Your task to perform on an android device: Open eBay Image 0: 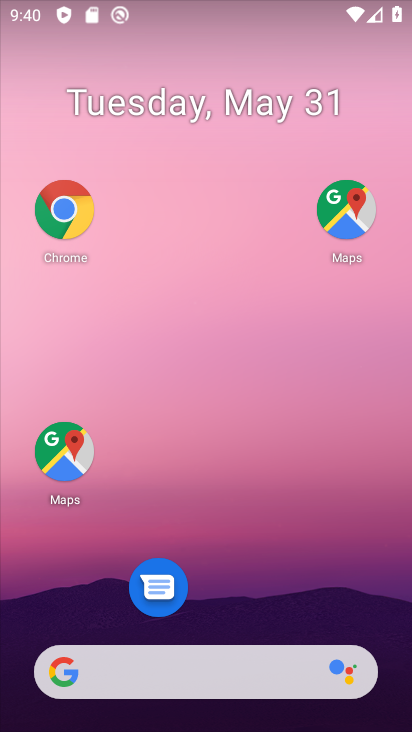
Step 0: drag from (272, 619) to (228, 177)
Your task to perform on an android device: Open eBay Image 1: 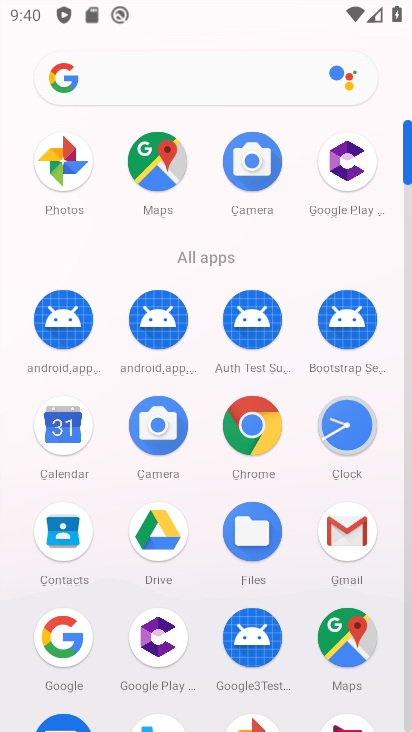
Step 1: click (249, 432)
Your task to perform on an android device: Open eBay Image 2: 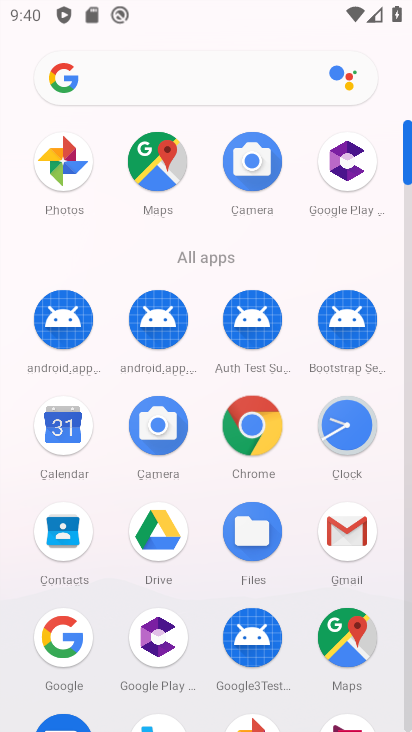
Step 2: click (252, 432)
Your task to perform on an android device: Open eBay Image 3: 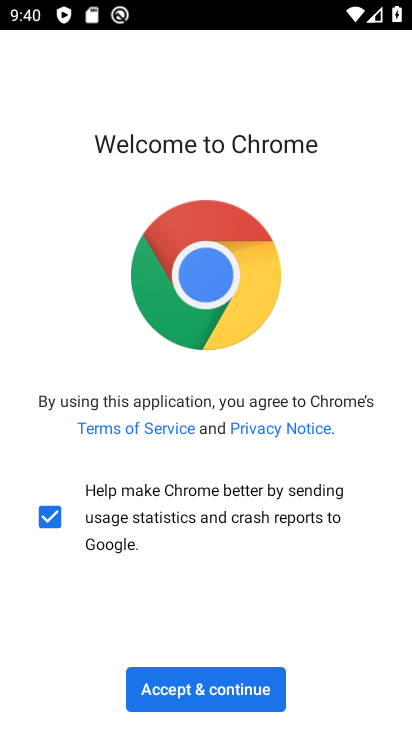
Step 3: click (243, 689)
Your task to perform on an android device: Open eBay Image 4: 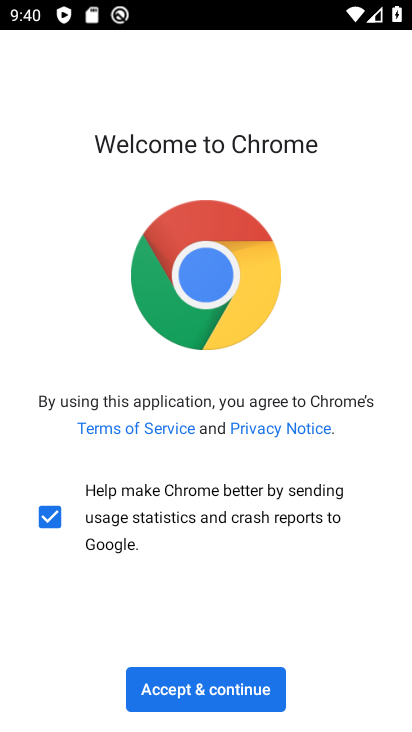
Step 4: click (242, 689)
Your task to perform on an android device: Open eBay Image 5: 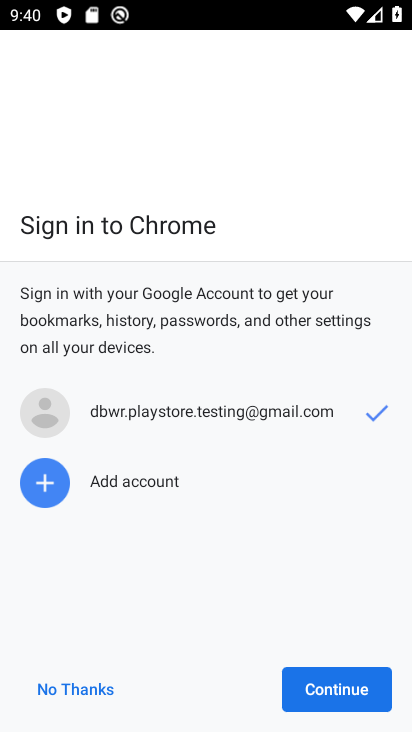
Step 5: click (242, 689)
Your task to perform on an android device: Open eBay Image 6: 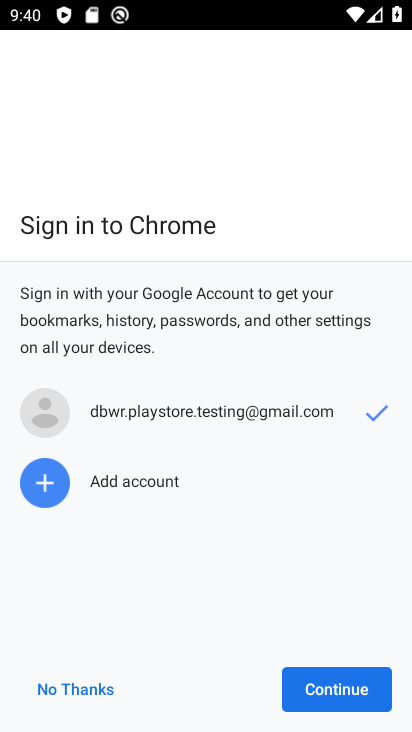
Step 6: click (242, 689)
Your task to perform on an android device: Open eBay Image 7: 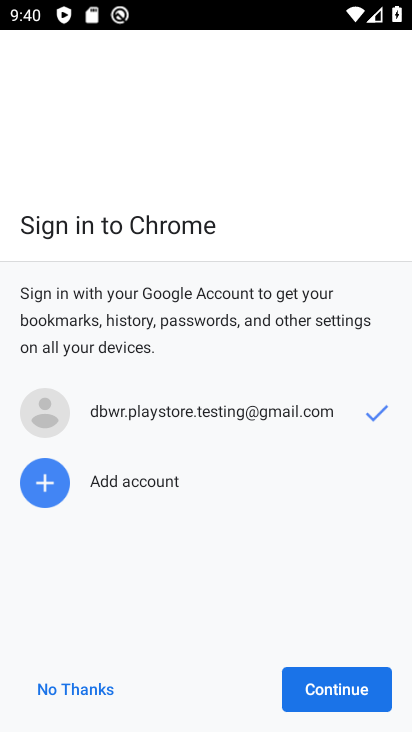
Step 7: click (358, 688)
Your task to perform on an android device: Open eBay Image 8: 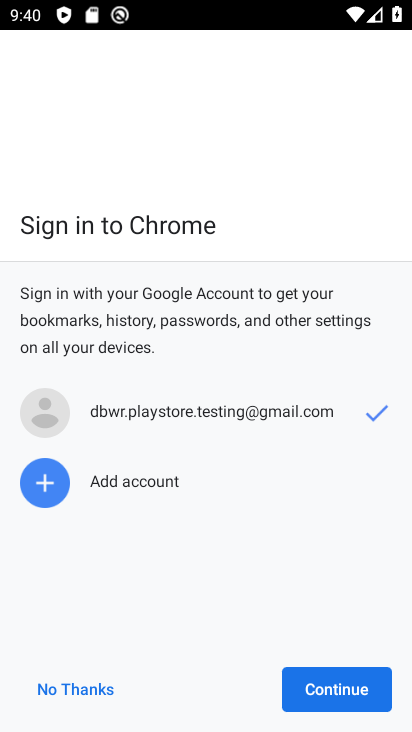
Step 8: click (358, 691)
Your task to perform on an android device: Open eBay Image 9: 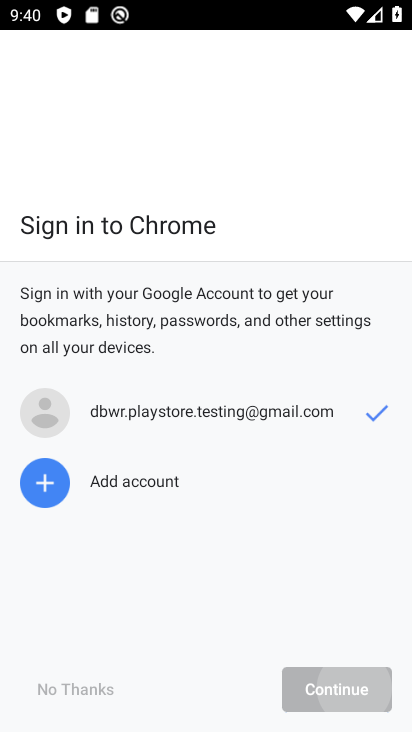
Step 9: click (358, 691)
Your task to perform on an android device: Open eBay Image 10: 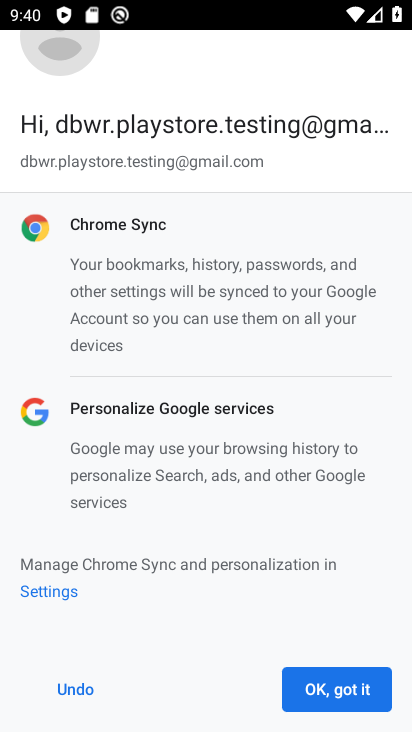
Step 10: click (339, 689)
Your task to perform on an android device: Open eBay Image 11: 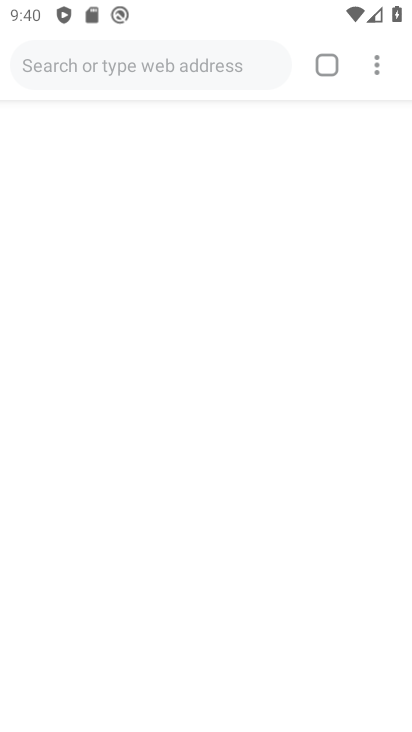
Step 11: click (356, 692)
Your task to perform on an android device: Open eBay Image 12: 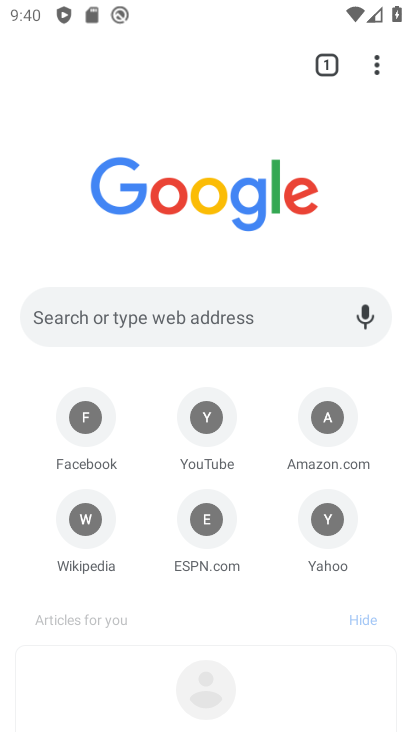
Step 12: press back button
Your task to perform on an android device: Open eBay Image 13: 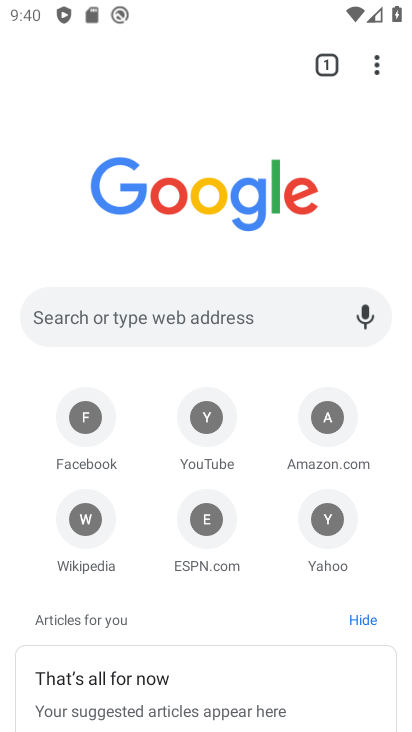
Step 13: press back button
Your task to perform on an android device: Open eBay Image 14: 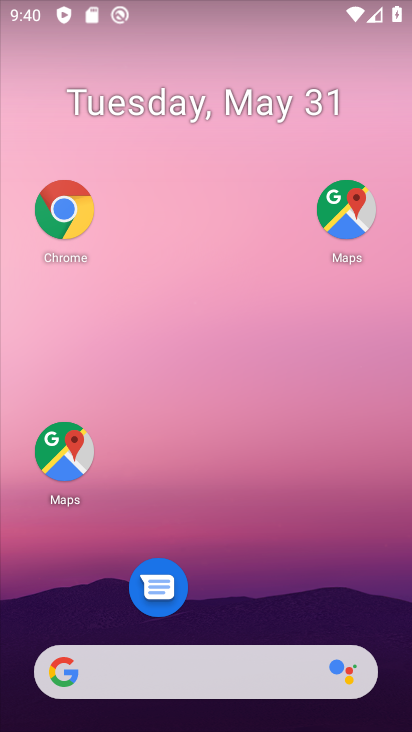
Step 14: drag from (261, 339) to (191, 75)
Your task to perform on an android device: Open eBay Image 15: 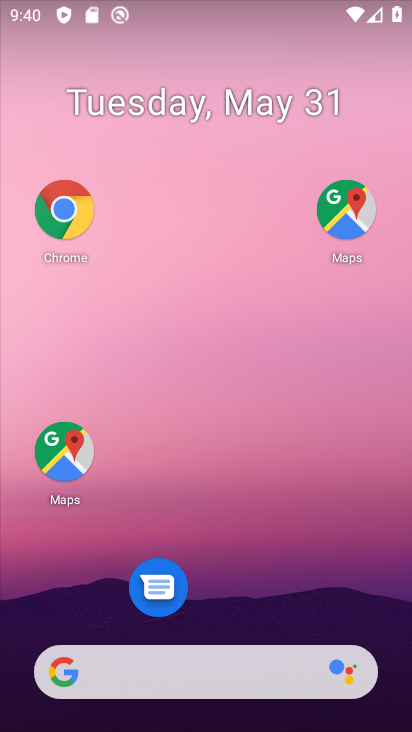
Step 15: drag from (240, 637) to (170, 9)
Your task to perform on an android device: Open eBay Image 16: 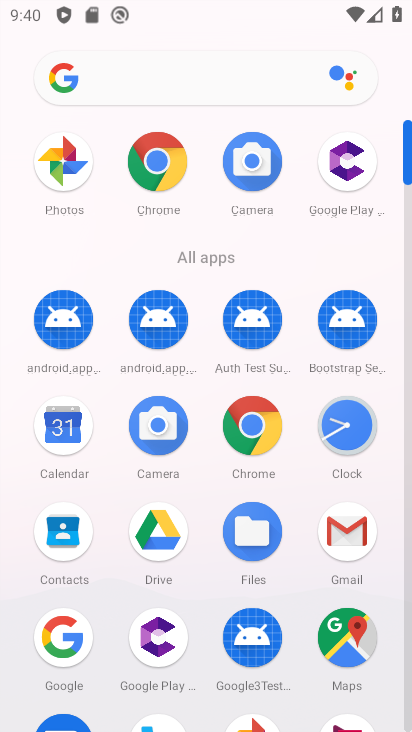
Step 16: click (159, 160)
Your task to perform on an android device: Open eBay Image 17: 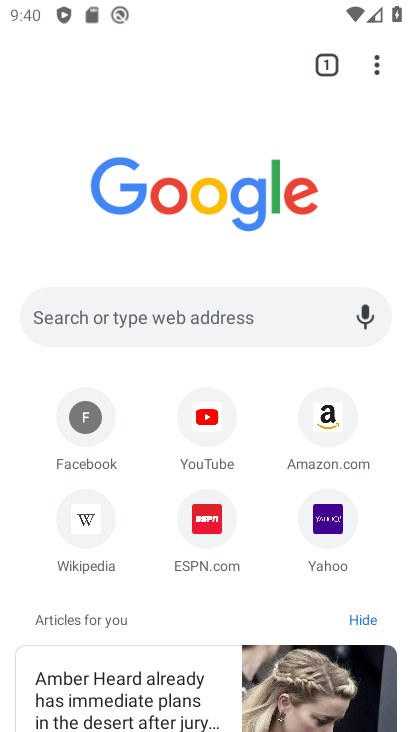
Step 17: click (159, 160)
Your task to perform on an android device: Open eBay Image 18: 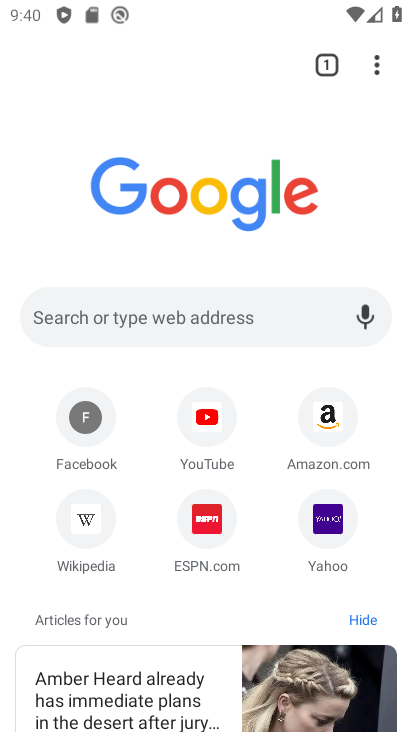
Step 18: click (374, 73)
Your task to perform on an android device: Open eBay Image 19: 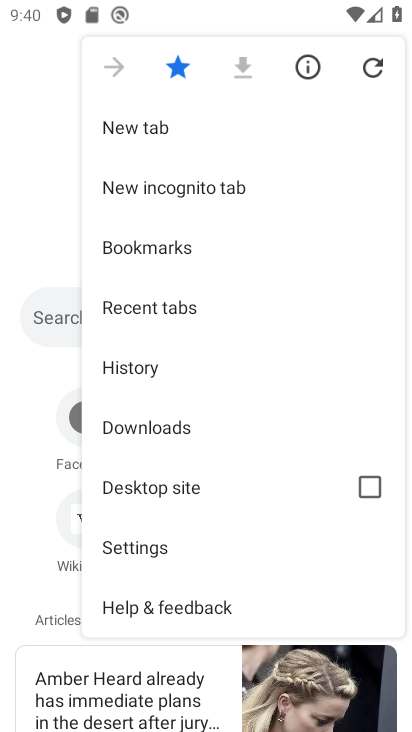
Step 19: click (383, 67)
Your task to perform on an android device: Open eBay Image 20: 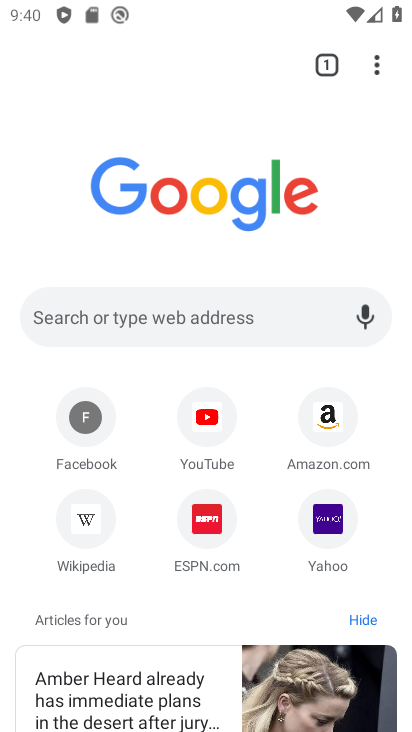
Step 20: click (384, 71)
Your task to perform on an android device: Open eBay Image 21: 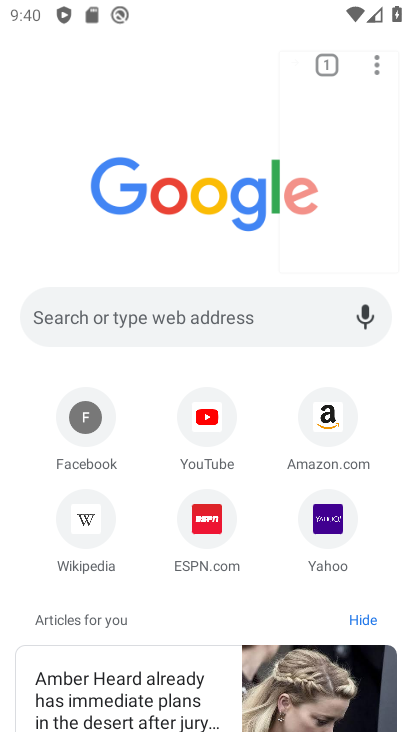
Step 21: click (374, 70)
Your task to perform on an android device: Open eBay Image 22: 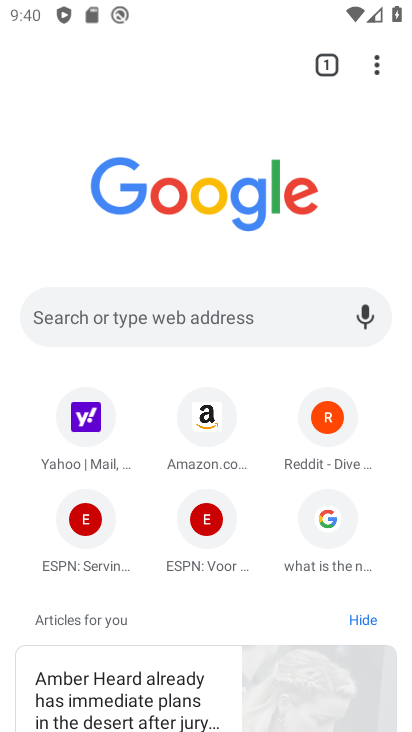
Step 22: click (374, 70)
Your task to perform on an android device: Open eBay Image 23: 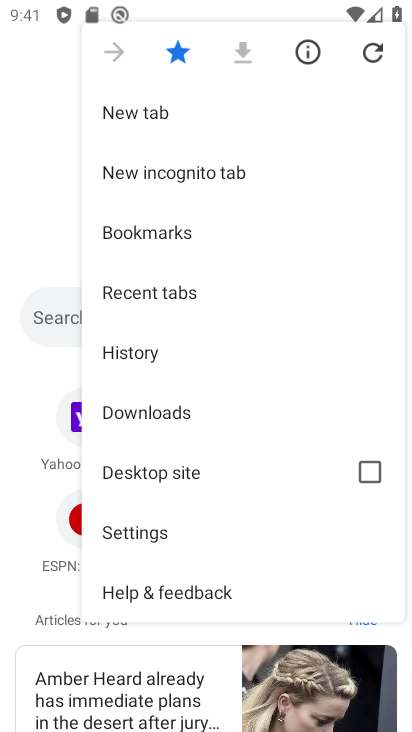
Step 23: click (20, 214)
Your task to perform on an android device: Open eBay Image 24: 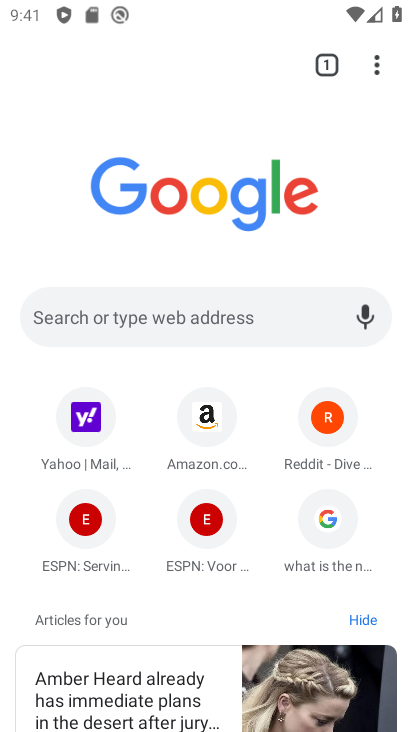
Step 24: click (22, 209)
Your task to perform on an android device: Open eBay Image 25: 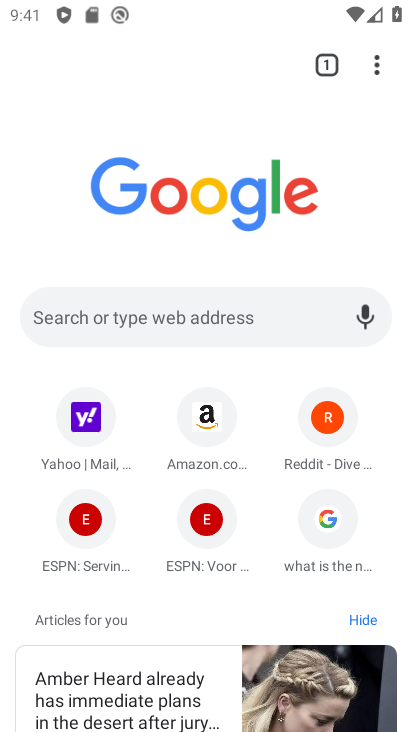
Step 25: click (39, 197)
Your task to perform on an android device: Open eBay Image 26: 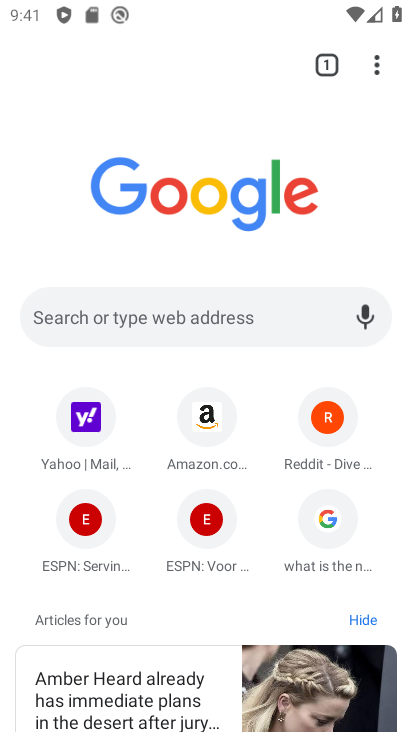
Step 26: click (67, 320)
Your task to perform on an android device: Open eBay Image 27: 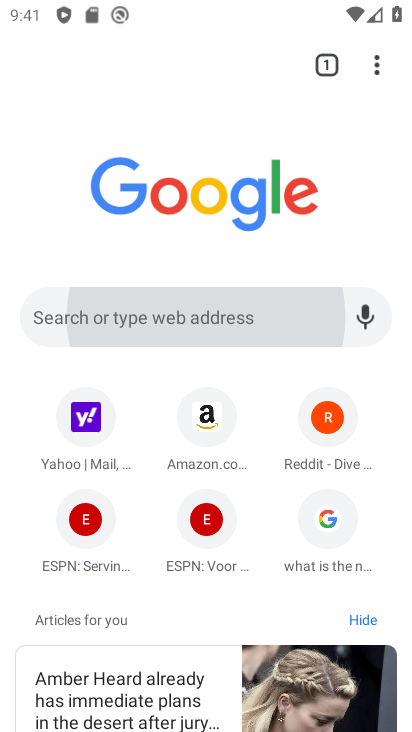
Step 27: click (67, 320)
Your task to perform on an android device: Open eBay Image 28: 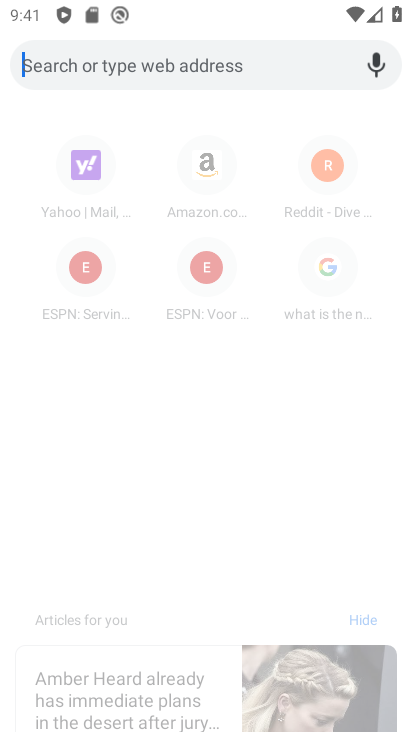
Step 28: click (64, 320)
Your task to perform on an android device: Open eBay Image 29: 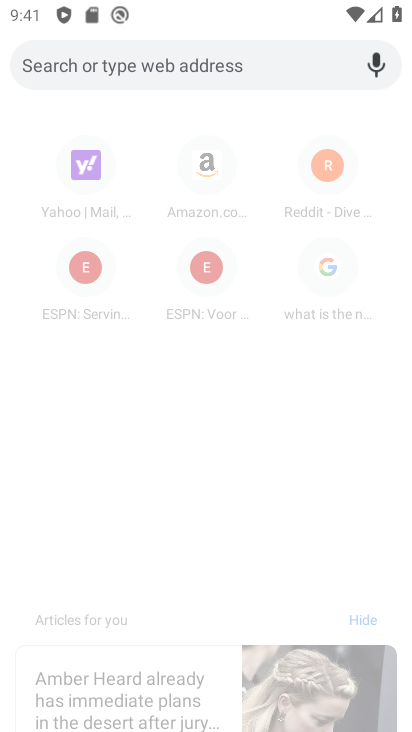
Step 29: click (68, 320)
Your task to perform on an android device: Open eBay Image 30: 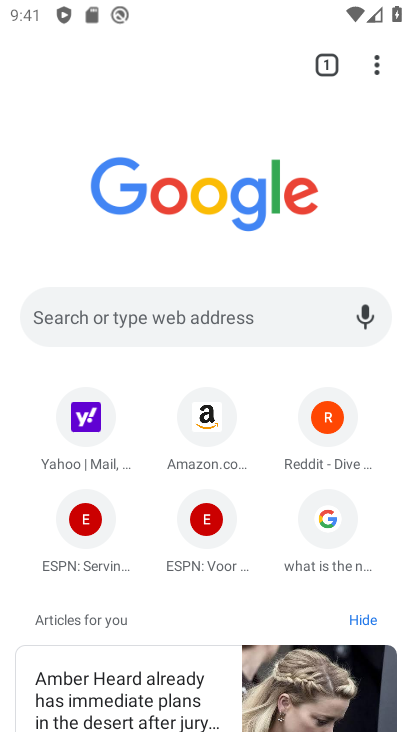
Step 30: click (53, 310)
Your task to perform on an android device: Open eBay Image 31: 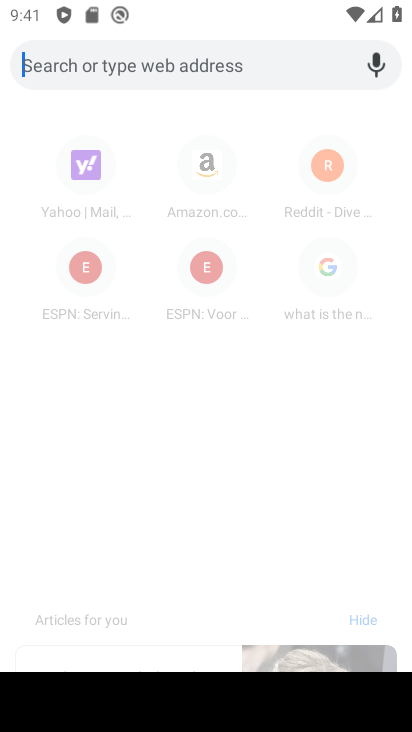
Step 31: type "ebay.com"
Your task to perform on an android device: Open eBay Image 32: 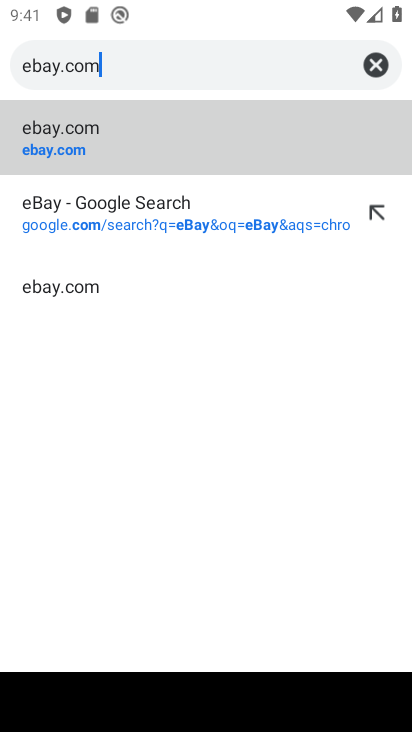
Step 32: click (51, 135)
Your task to perform on an android device: Open eBay Image 33: 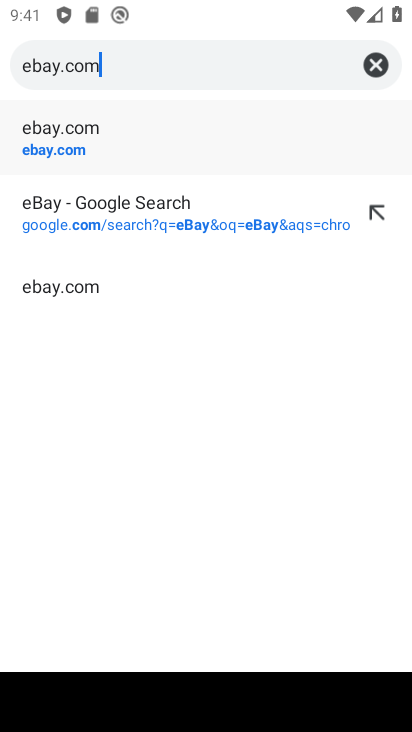
Step 33: click (66, 136)
Your task to perform on an android device: Open eBay Image 34: 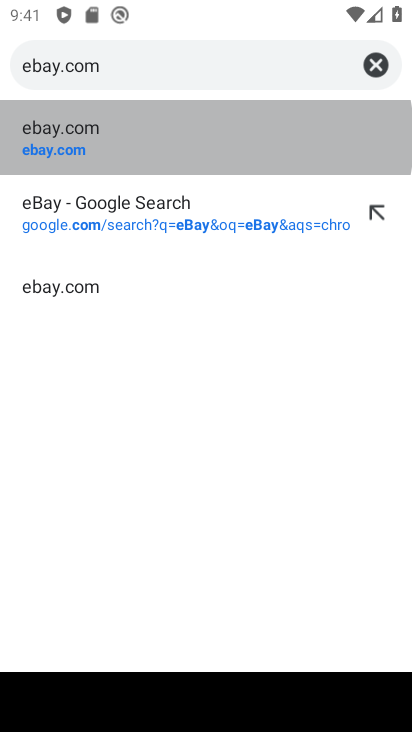
Step 34: click (66, 136)
Your task to perform on an android device: Open eBay Image 35: 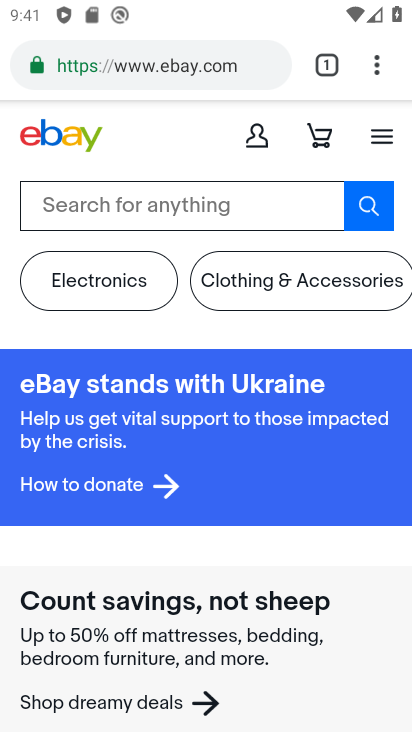
Step 35: task complete